Your task to perform on an android device: check google app version Image 0: 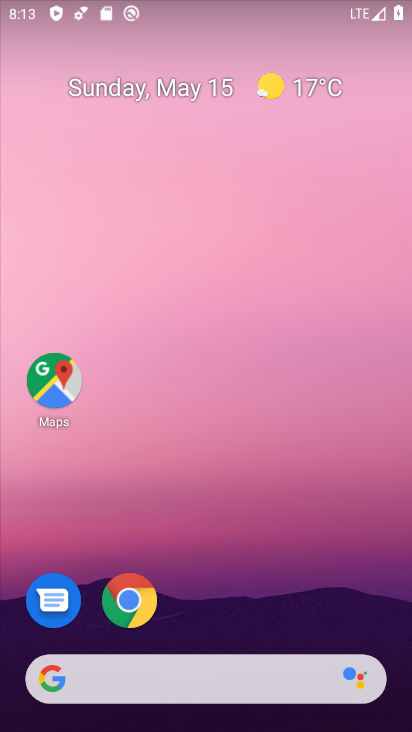
Step 0: drag from (248, 590) to (221, 27)
Your task to perform on an android device: check google app version Image 1: 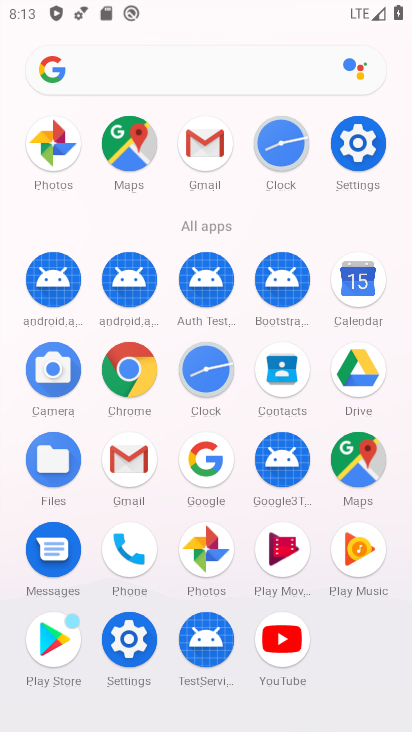
Step 1: click (206, 460)
Your task to perform on an android device: check google app version Image 2: 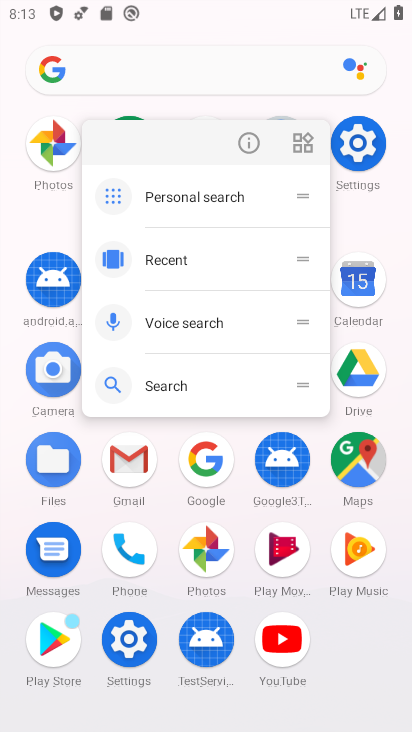
Step 2: click (246, 143)
Your task to perform on an android device: check google app version Image 3: 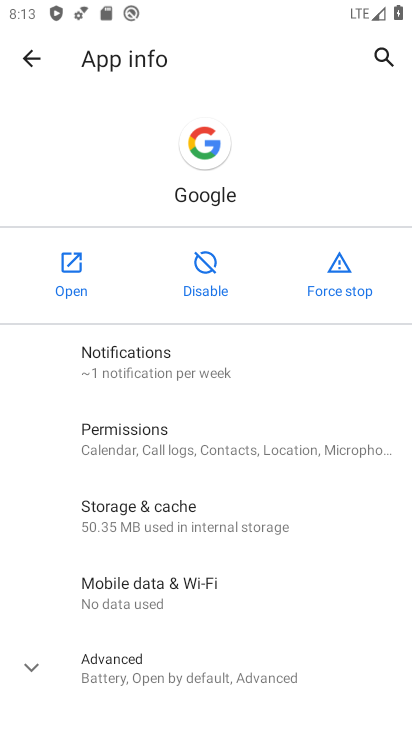
Step 3: drag from (162, 619) to (189, 456)
Your task to perform on an android device: check google app version Image 4: 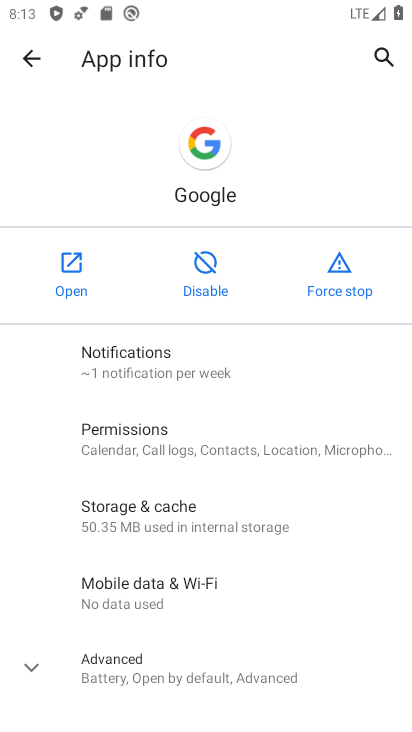
Step 4: click (125, 681)
Your task to perform on an android device: check google app version Image 5: 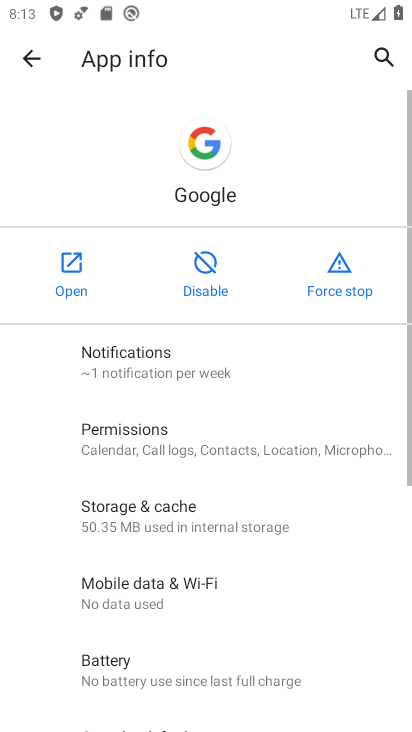
Step 5: task complete